Your task to perform on an android device: remove spam from my inbox in the gmail app Image 0: 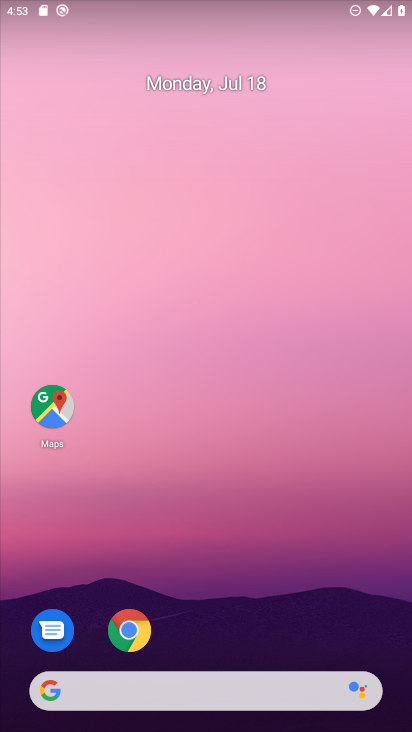
Step 0: press home button
Your task to perform on an android device: remove spam from my inbox in the gmail app Image 1: 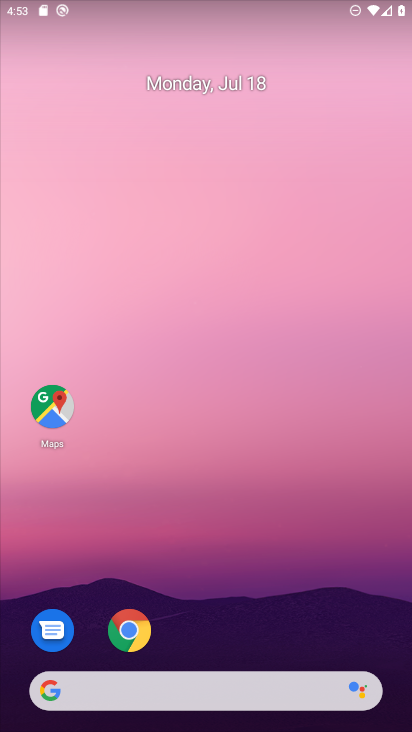
Step 1: drag from (239, 653) to (293, 159)
Your task to perform on an android device: remove spam from my inbox in the gmail app Image 2: 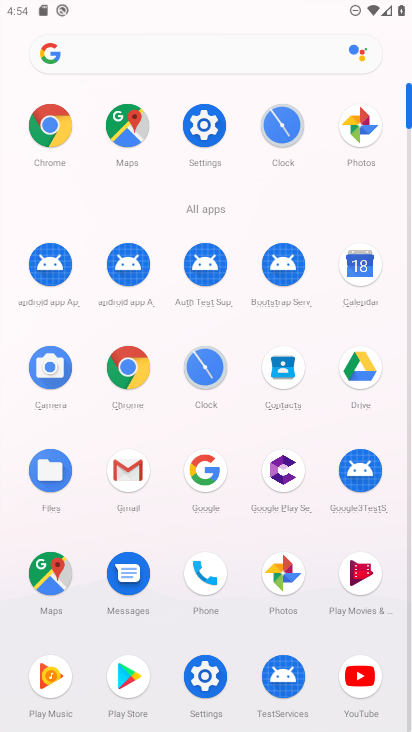
Step 2: click (127, 465)
Your task to perform on an android device: remove spam from my inbox in the gmail app Image 3: 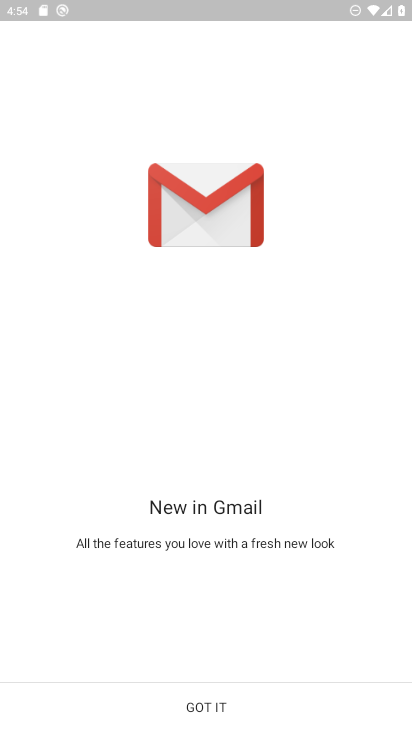
Step 3: click (208, 710)
Your task to perform on an android device: remove spam from my inbox in the gmail app Image 4: 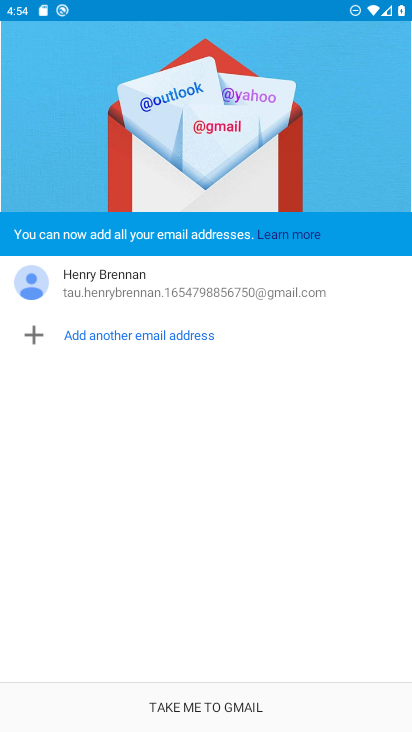
Step 4: click (204, 713)
Your task to perform on an android device: remove spam from my inbox in the gmail app Image 5: 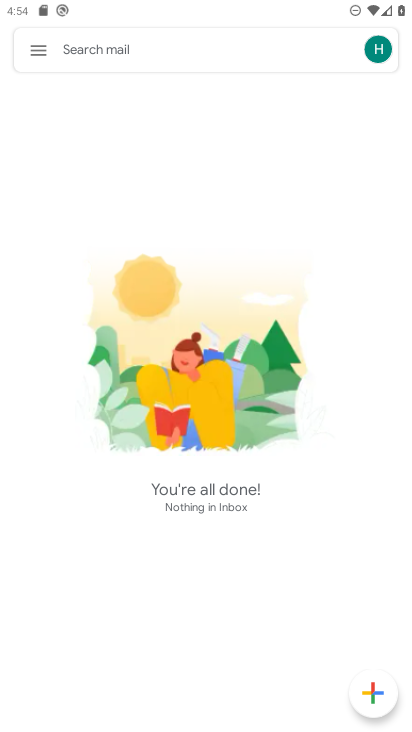
Step 5: click (35, 43)
Your task to perform on an android device: remove spam from my inbox in the gmail app Image 6: 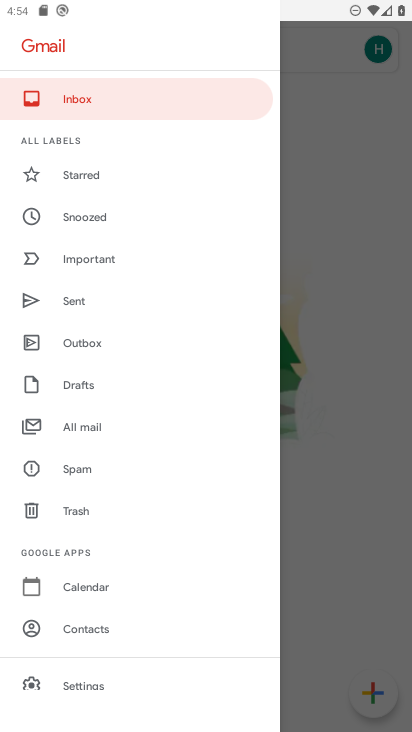
Step 6: click (94, 468)
Your task to perform on an android device: remove spam from my inbox in the gmail app Image 7: 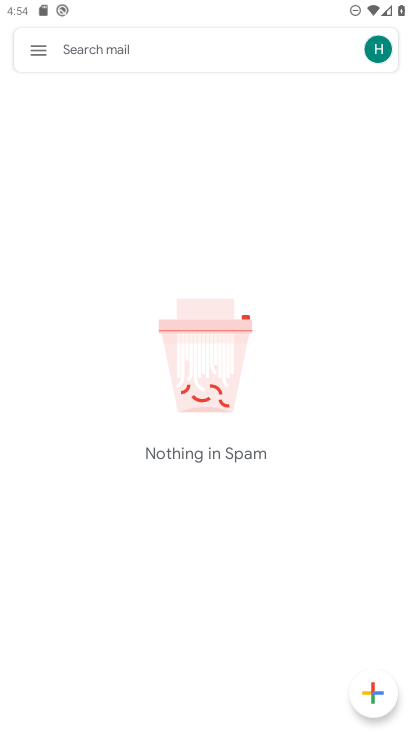
Step 7: task complete